Your task to perform on an android device: Open Chrome and go to settings Image 0: 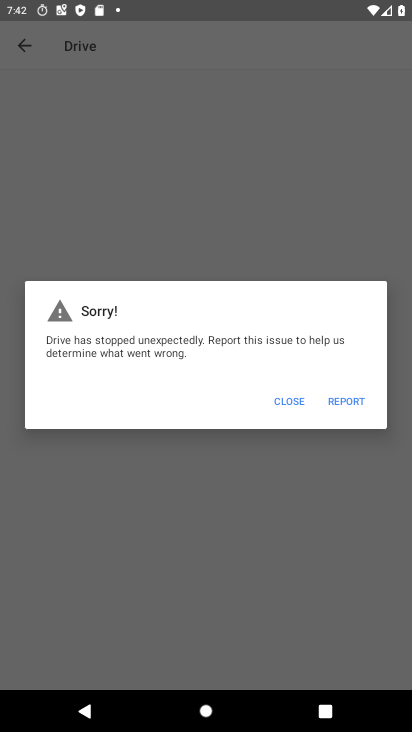
Step 0: press home button
Your task to perform on an android device: Open Chrome and go to settings Image 1: 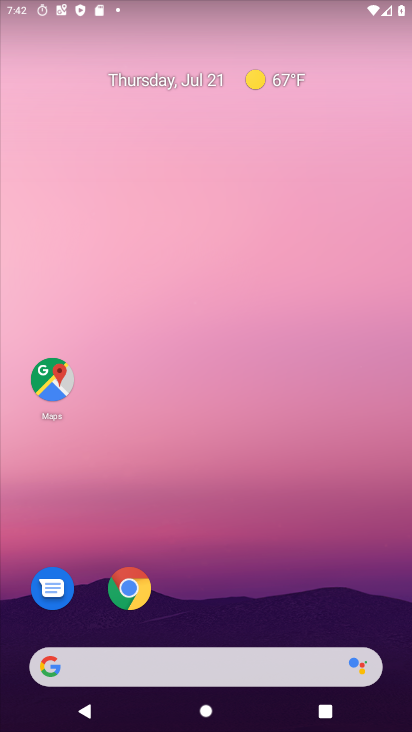
Step 1: click (121, 605)
Your task to perform on an android device: Open Chrome and go to settings Image 2: 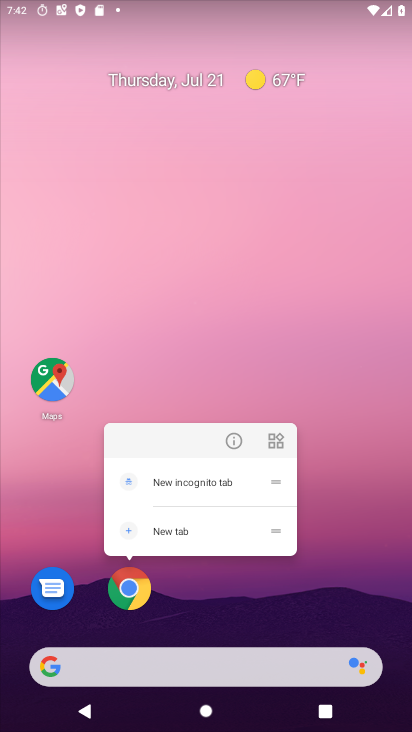
Step 2: click (132, 601)
Your task to perform on an android device: Open Chrome and go to settings Image 3: 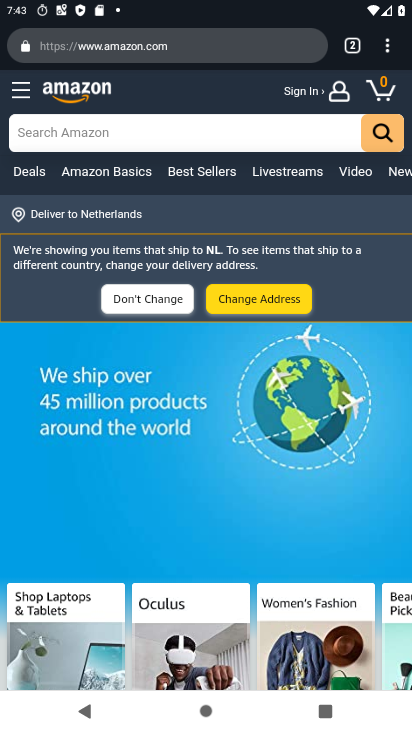
Step 3: click (390, 48)
Your task to perform on an android device: Open Chrome and go to settings Image 4: 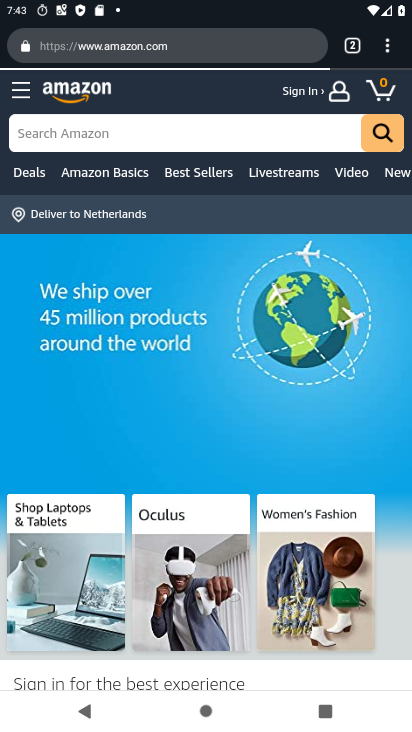
Step 4: click (390, 48)
Your task to perform on an android device: Open Chrome and go to settings Image 5: 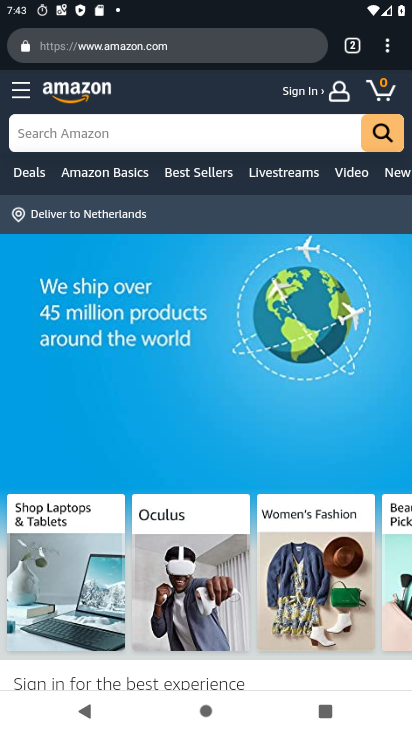
Step 5: click (385, 45)
Your task to perform on an android device: Open Chrome and go to settings Image 6: 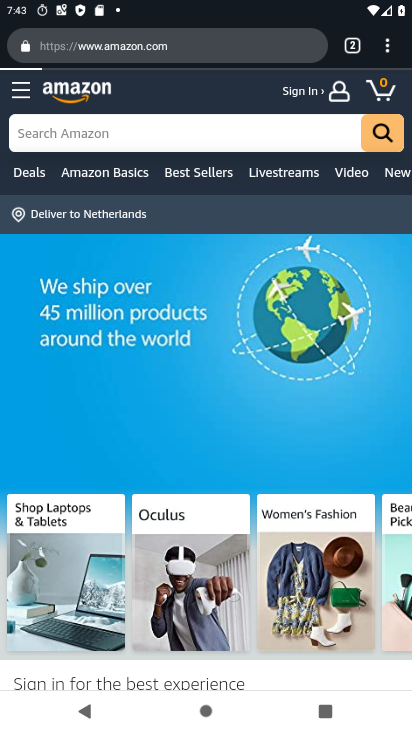
Step 6: click (385, 53)
Your task to perform on an android device: Open Chrome and go to settings Image 7: 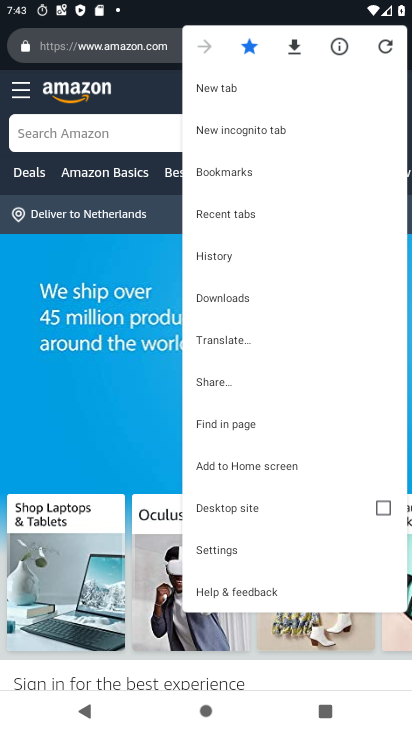
Step 7: click (222, 564)
Your task to perform on an android device: Open Chrome and go to settings Image 8: 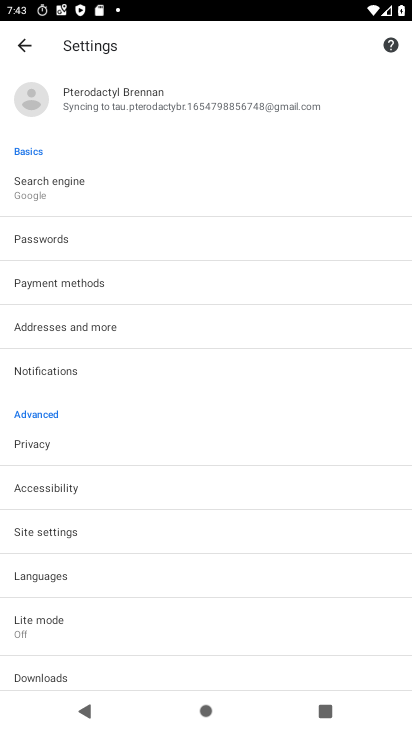
Step 8: task complete